Your task to perform on an android device: Add "dell xps" to the cart on ebay, then select checkout. Image 0: 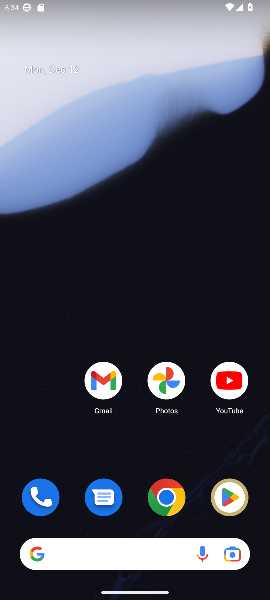
Step 0: drag from (40, 430) to (43, 53)
Your task to perform on an android device: Add "dell xps" to the cart on ebay, then select checkout. Image 1: 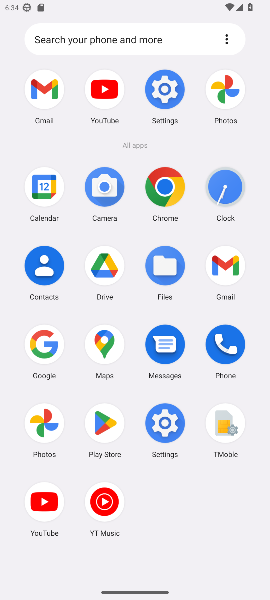
Step 1: click (35, 342)
Your task to perform on an android device: Add "dell xps" to the cart on ebay, then select checkout. Image 2: 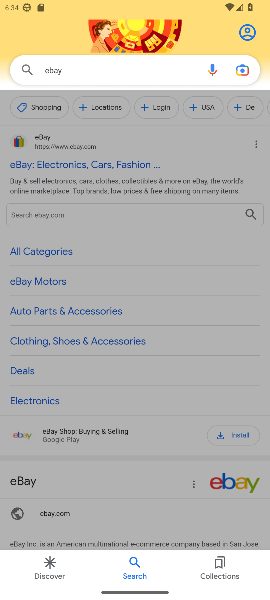
Step 2: click (73, 70)
Your task to perform on an android device: Add "dell xps" to the cart on ebay, then select checkout. Image 3: 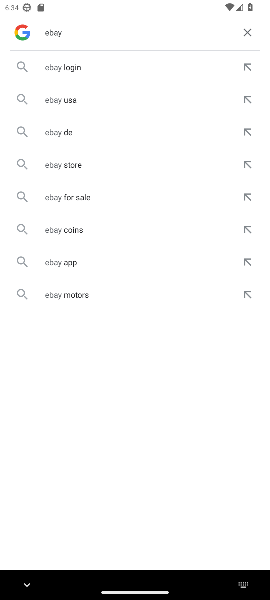
Step 3: click (245, 26)
Your task to perform on an android device: Add "dell xps" to the cart on ebay, then select checkout. Image 4: 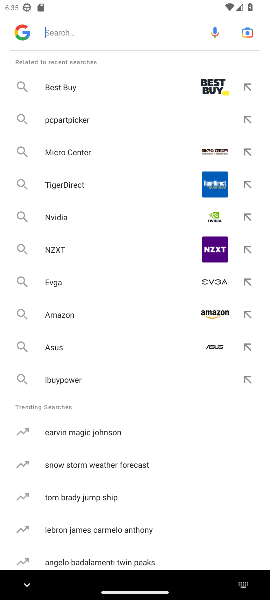
Step 4: type "ebay"
Your task to perform on an android device: Add "dell xps" to the cart on ebay, then select checkout. Image 5: 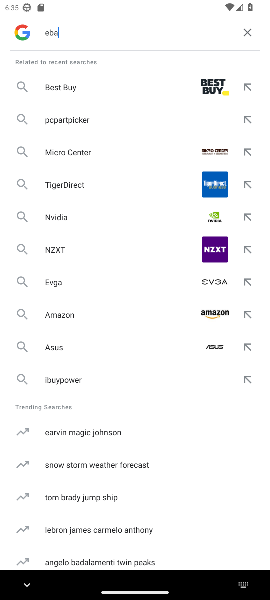
Step 5: press enter
Your task to perform on an android device: Add "dell xps" to the cart on ebay, then select checkout. Image 6: 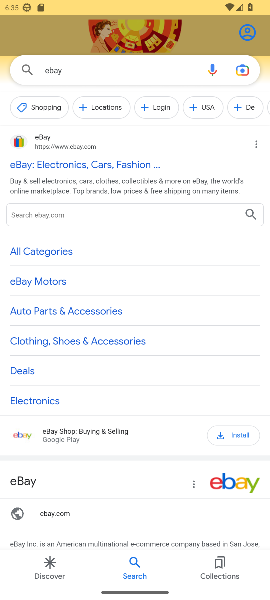
Step 6: click (93, 168)
Your task to perform on an android device: Add "dell xps" to the cart on ebay, then select checkout. Image 7: 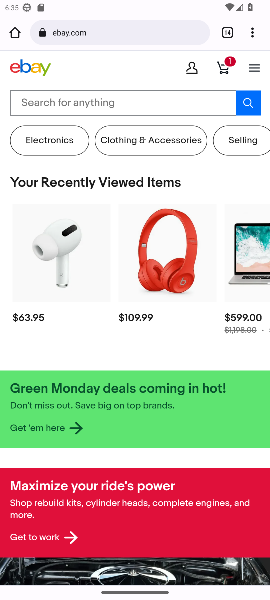
Step 7: click (58, 103)
Your task to perform on an android device: Add "dell xps" to the cart on ebay, then select checkout. Image 8: 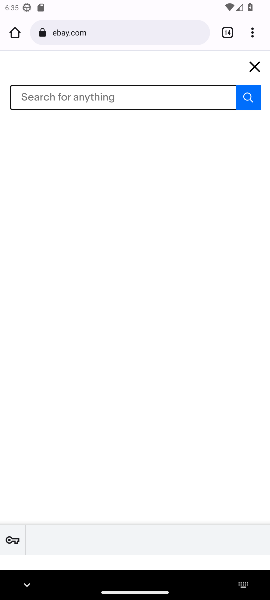
Step 8: type "dell xps"
Your task to perform on an android device: Add "dell xps" to the cart on ebay, then select checkout. Image 9: 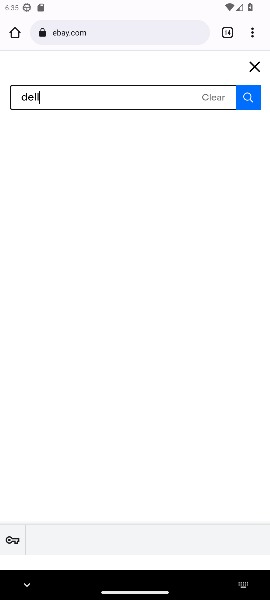
Step 9: press enter
Your task to perform on an android device: Add "dell xps" to the cart on ebay, then select checkout. Image 10: 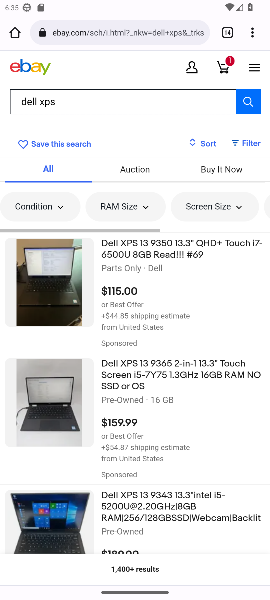
Step 10: click (111, 252)
Your task to perform on an android device: Add "dell xps" to the cart on ebay, then select checkout. Image 11: 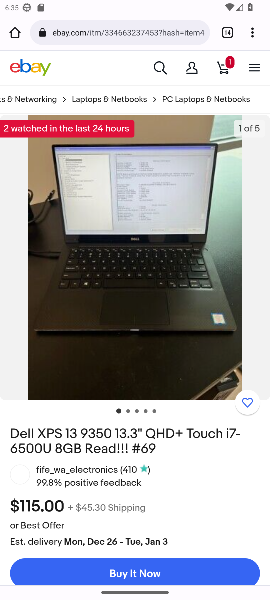
Step 11: drag from (174, 452) to (188, 236)
Your task to perform on an android device: Add "dell xps" to the cart on ebay, then select checkout. Image 12: 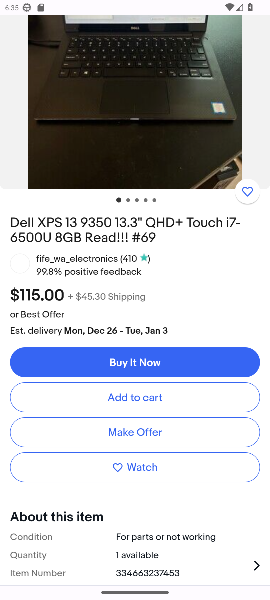
Step 12: drag from (171, 506) to (210, 251)
Your task to perform on an android device: Add "dell xps" to the cart on ebay, then select checkout. Image 13: 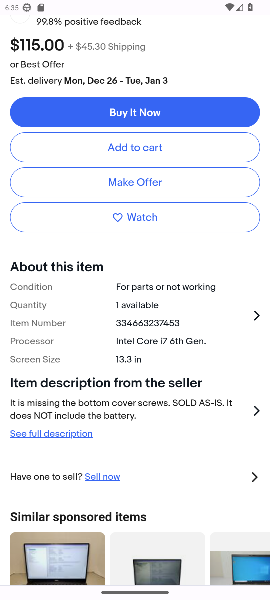
Step 13: click (125, 148)
Your task to perform on an android device: Add "dell xps" to the cart on ebay, then select checkout. Image 14: 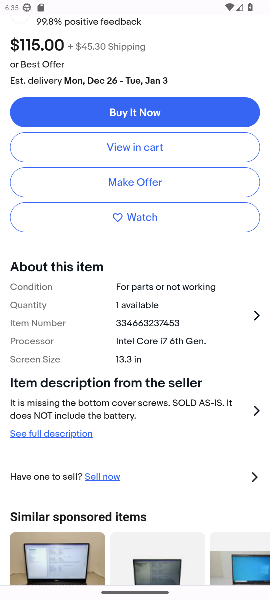
Step 14: click (128, 145)
Your task to perform on an android device: Add "dell xps" to the cart on ebay, then select checkout. Image 15: 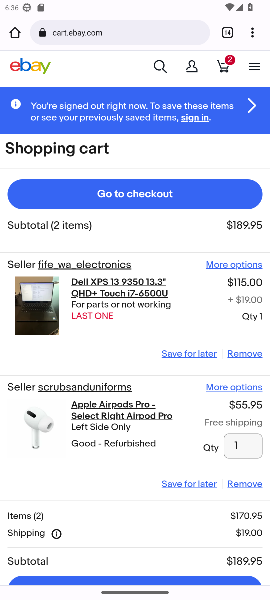
Step 15: drag from (154, 518) to (153, 294)
Your task to perform on an android device: Add "dell xps" to the cart on ebay, then select checkout. Image 16: 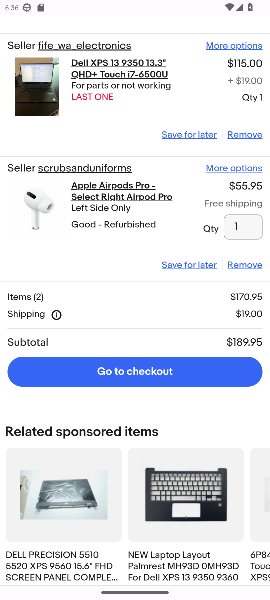
Step 16: click (124, 373)
Your task to perform on an android device: Add "dell xps" to the cart on ebay, then select checkout. Image 17: 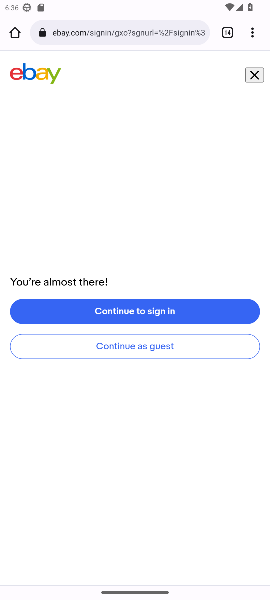
Step 17: task complete